Your task to perform on an android device: turn on location history Image 0: 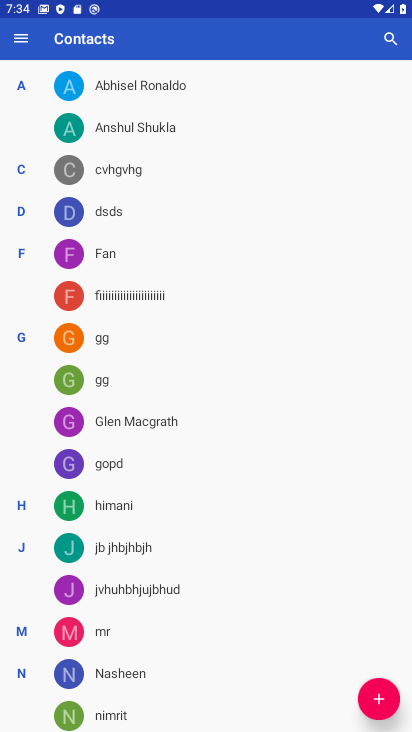
Step 0: press home button
Your task to perform on an android device: turn on location history Image 1: 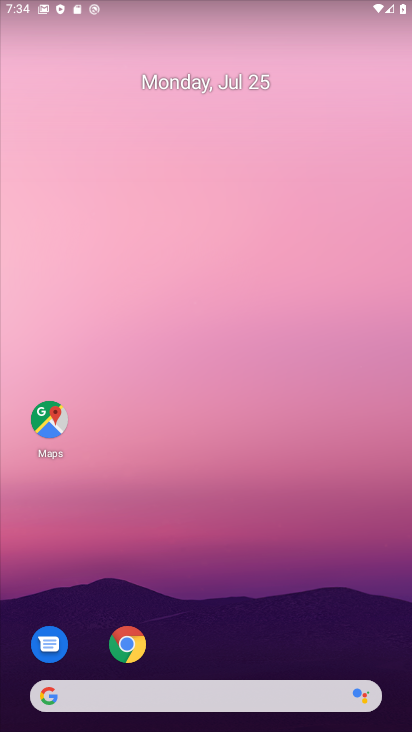
Step 1: drag from (289, 582) to (295, 115)
Your task to perform on an android device: turn on location history Image 2: 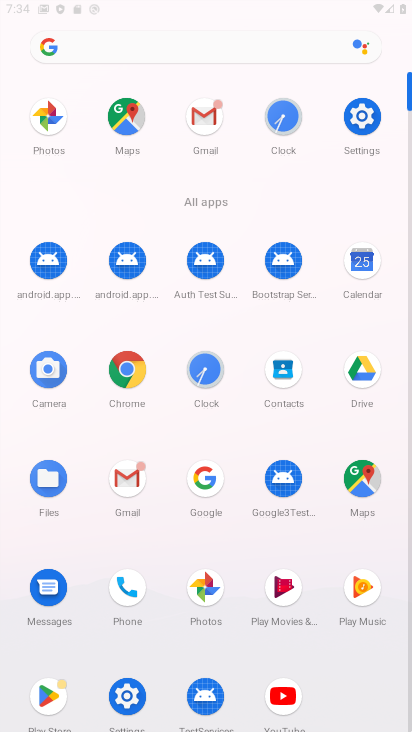
Step 2: drag from (209, 593) to (203, 105)
Your task to perform on an android device: turn on location history Image 3: 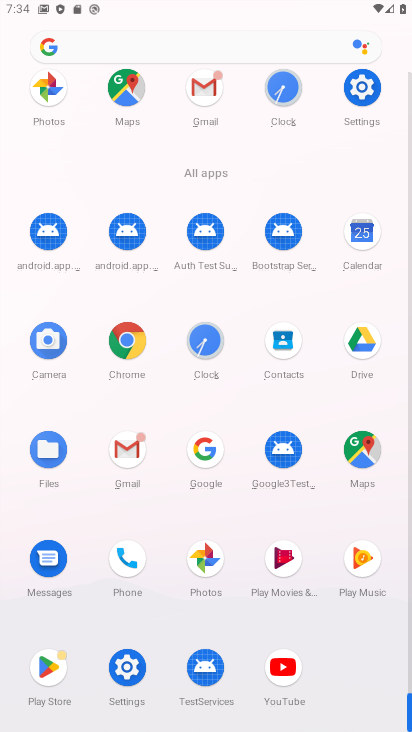
Step 3: click (134, 678)
Your task to perform on an android device: turn on location history Image 4: 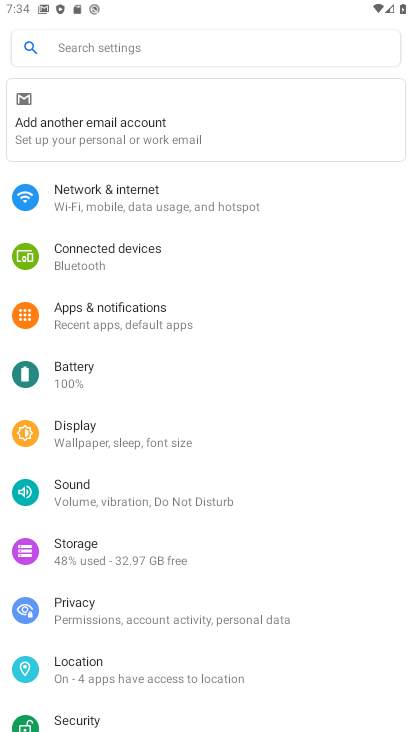
Step 4: click (150, 665)
Your task to perform on an android device: turn on location history Image 5: 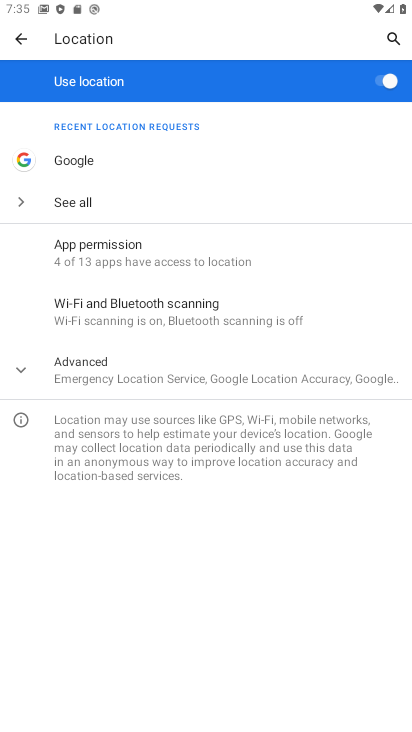
Step 5: click (216, 373)
Your task to perform on an android device: turn on location history Image 6: 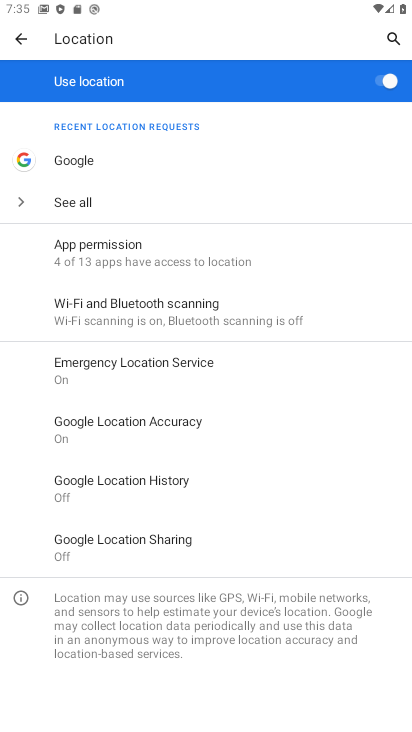
Step 6: click (178, 489)
Your task to perform on an android device: turn on location history Image 7: 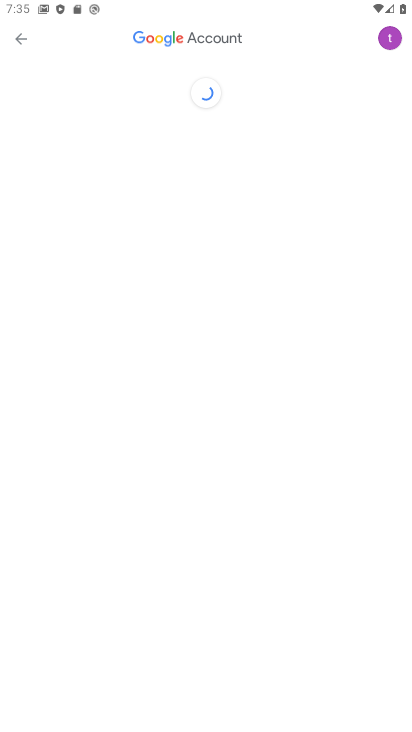
Step 7: click (341, 512)
Your task to perform on an android device: turn on location history Image 8: 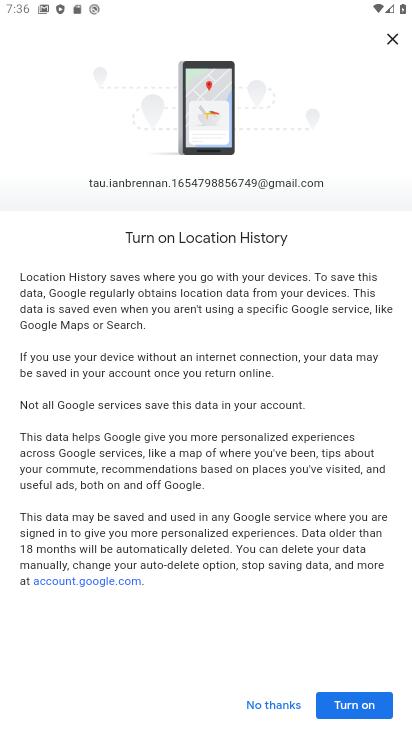
Step 8: click (355, 712)
Your task to perform on an android device: turn on location history Image 9: 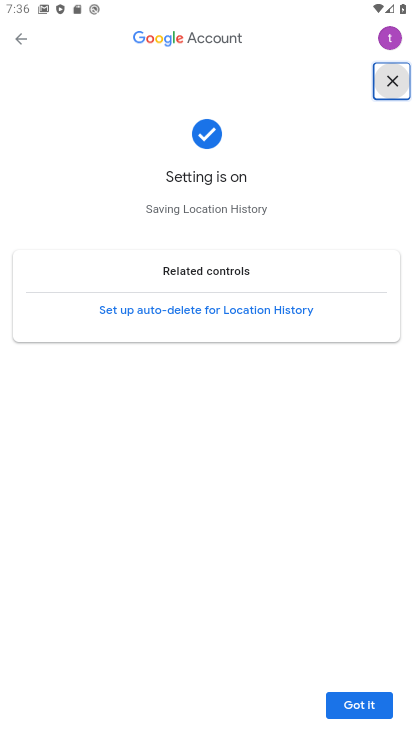
Step 9: click (373, 704)
Your task to perform on an android device: turn on location history Image 10: 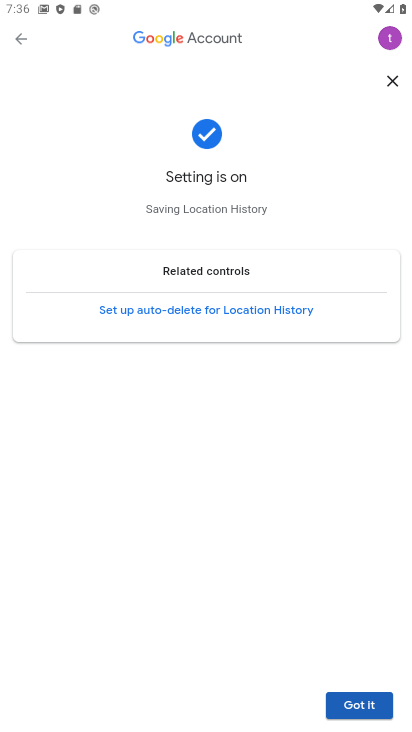
Step 10: click (361, 703)
Your task to perform on an android device: turn on location history Image 11: 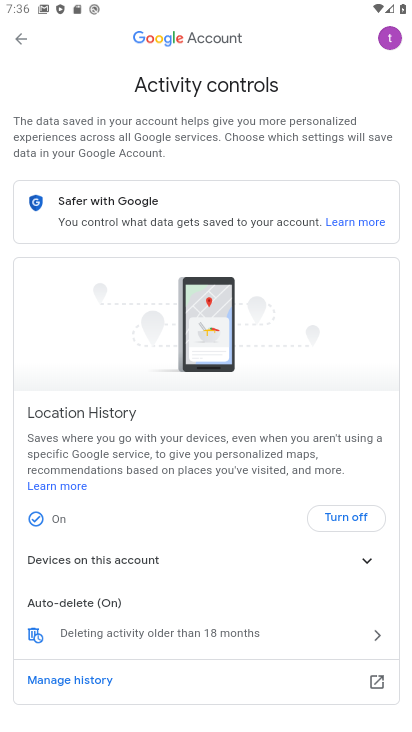
Step 11: task complete